Your task to perform on an android device: turn off priority inbox in the gmail app Image 0: 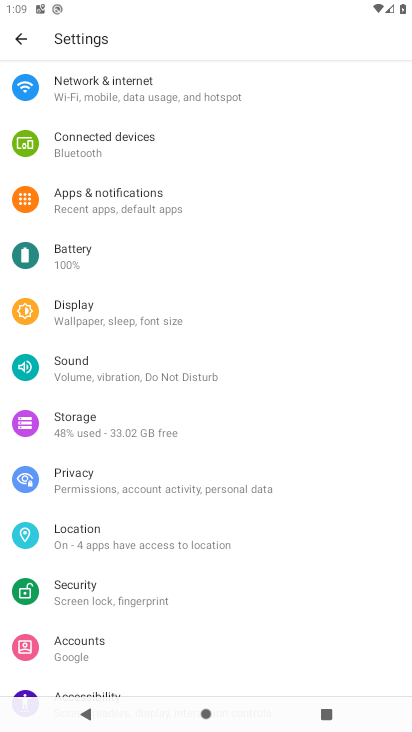
Step 0: press home button
Your task to perform on an android device: turn off priority inbox in the gmail app Image 1: 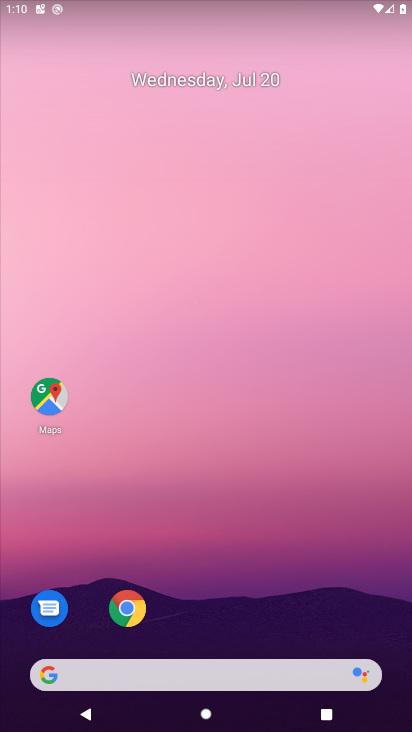
Step 1: drag from (225, 657) to (206, 228)
Your task to perform on an android device: turn off priority inbox in the gmail app Image 2: 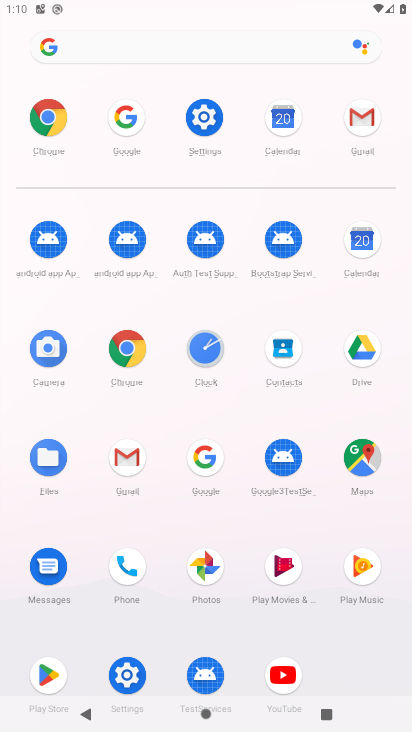
Step 2: click (369, 121)
Your task to perform on an android device: turn off priority inbox in the gmail app Image 3: 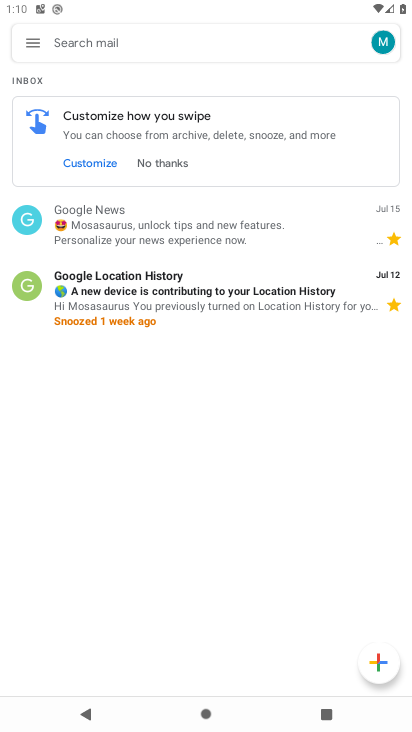
Step 3: click (34, 41)
Your task to perform on an android device: turn off priority inbox in the gmail app Image 4: 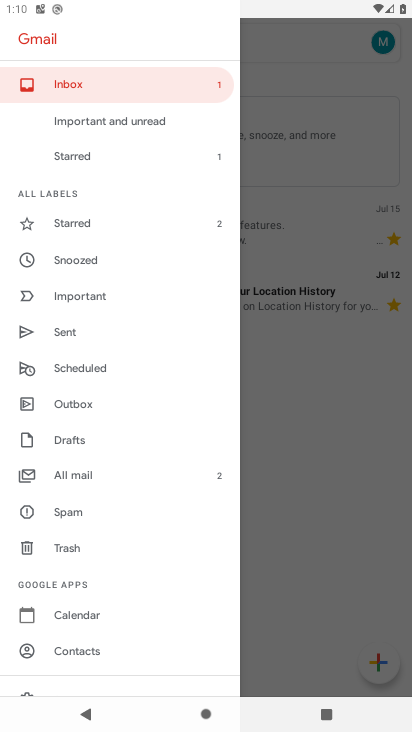
Step 4: drag from (88, 655) to (76, 241)
Your task to perform on an android device: turn off priority inbox in the gmail app Image 5: 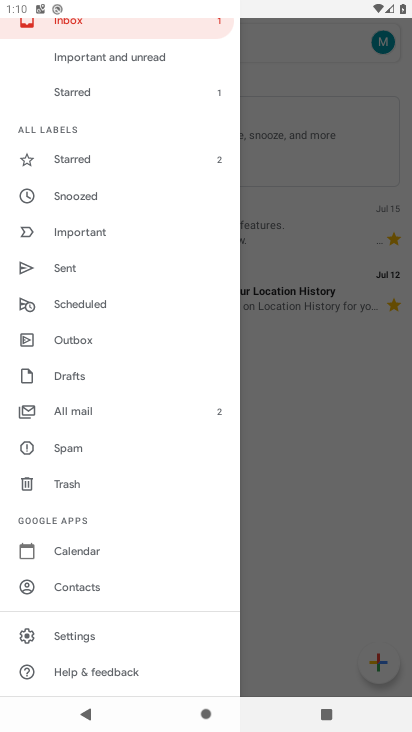
Step 5: click (75, 633)
Your task to perform on an android device: turn off priority inbox in the gmail app Image 6: 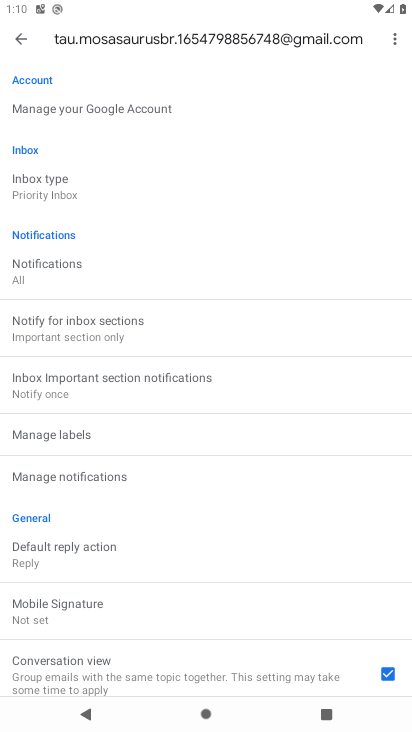
Step 6: task complete